Your task to perform on an android device: Open display settings Image 0: 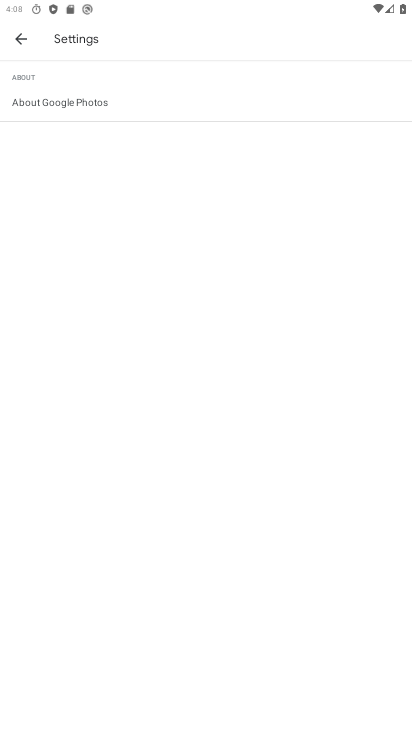
Step 0: press home button
Your task to perform on an android device: Open display settings Image 1: 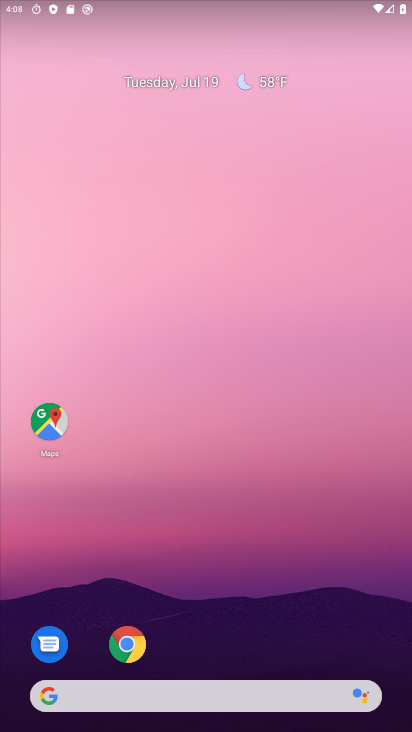
Step 1: drag from (267, 629) to (195, 128)
Your task to perform on an android device: Open display settings Image 2: 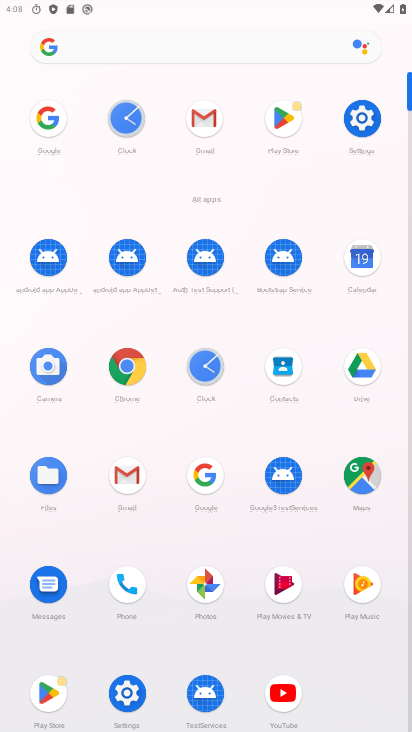
Step 2: click (361, 115)
Your task to perform on an android device: Open display settings Image 3: 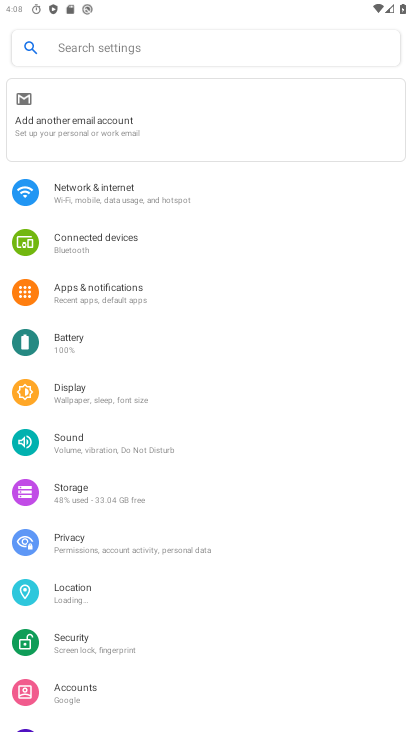
Step 3: click (70, 393)
Your task to perform on an android device: Open display settings Image 4: 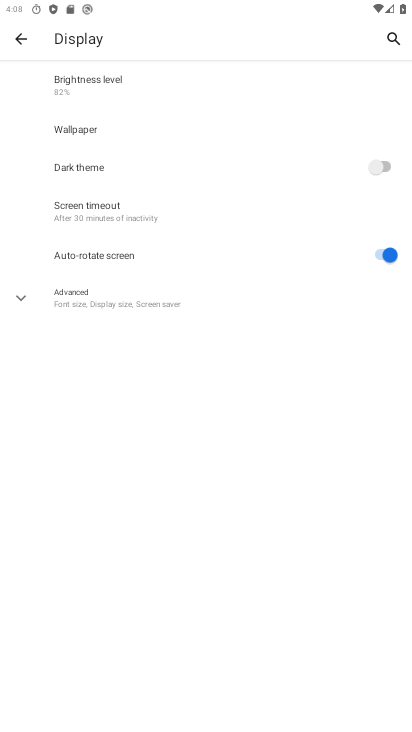
Step 4: task complete